Your task to perform on an android device: make emails show in primary in the gmail app Image 0: 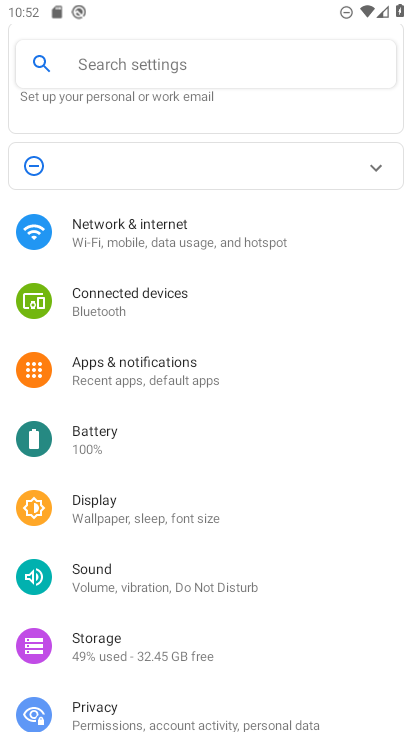
Step 0: press home button
Your task to perform on an android device: make emails show in primary in the gmail app Image 1: 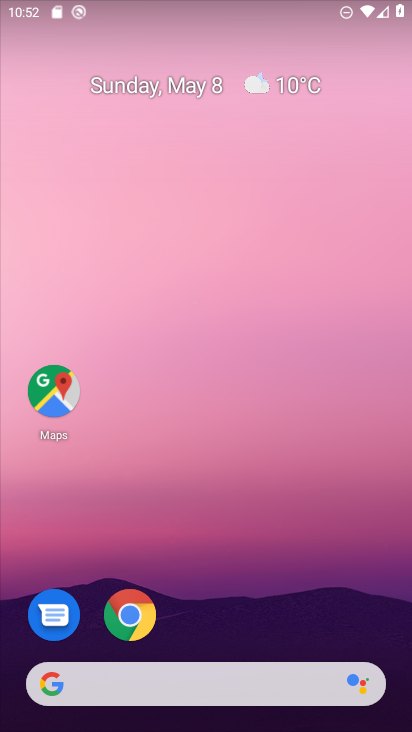
Step 1: drag from (278, 614) to (327, 161)
Your task to perform on an android device: make emails show in primary in the gmail app Image 2: 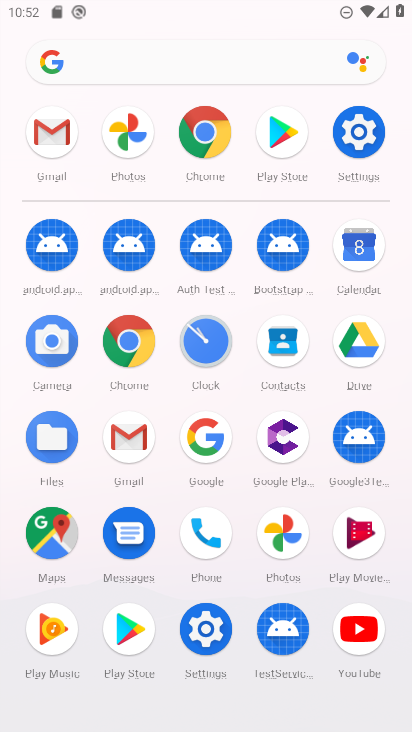
Step 2: click (59, 139)
Your task to perform on an android device: make emails show in primary in the gmail app Image 3: 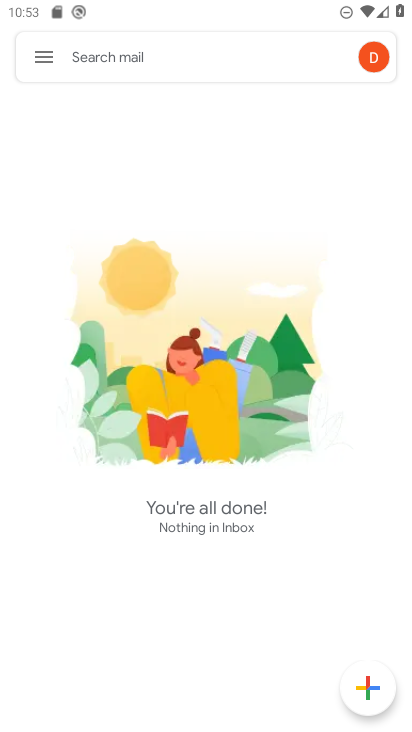
Step 3: click (50, 55)
Your task to perform on an android device: make emails show in primary in the gmail app Image 4: 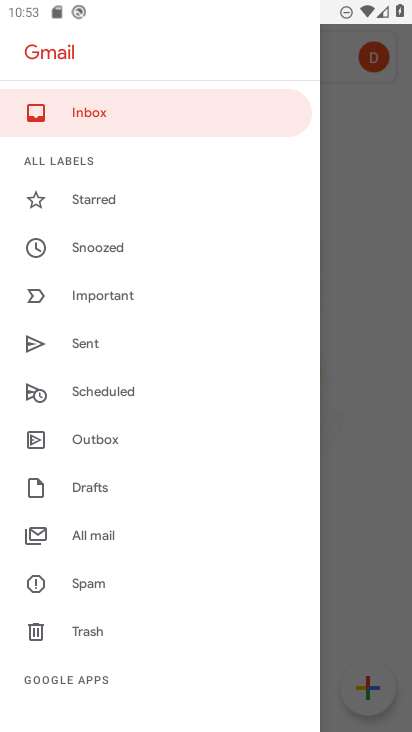
Step 4: drag from (140, 554) to (141, 34)
Your task to perform on an android device: make emails show in primary in the gmail app Image 5: 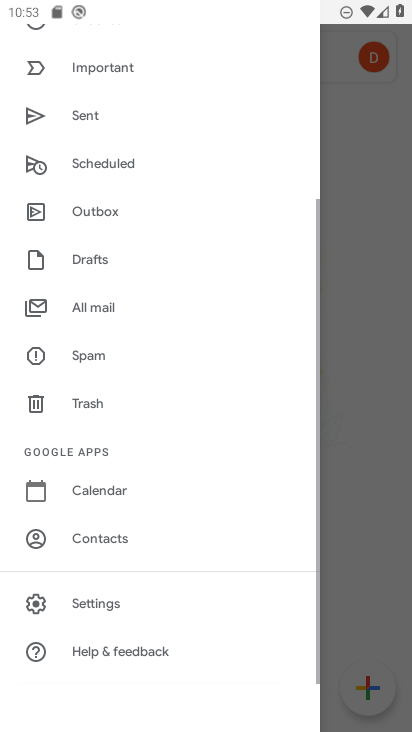
Step 5: click (117, 608)
Your task to perform on an android device: make emails show in primary in the gmail app Image 6: 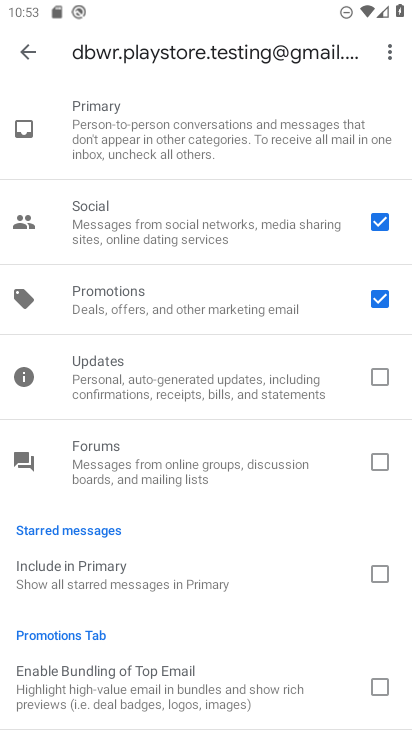
Step 6: click (133, 126)
Your task to perform on an android device: make emails show in primary in the gmail app Image 7: 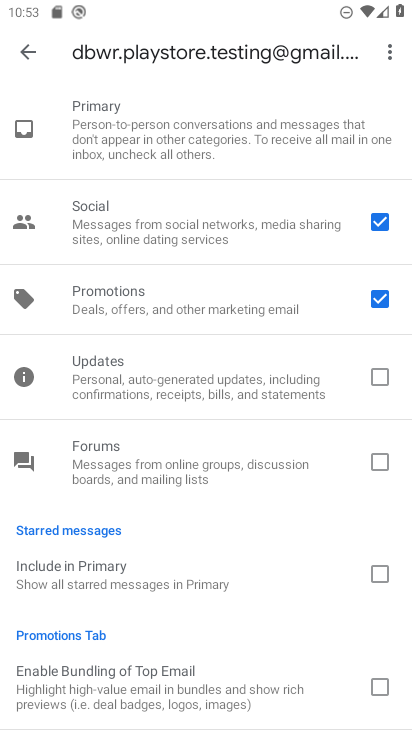
Step 7: task complete